Your task to perform on an android device: turn on translation in the chrome app Image 0: 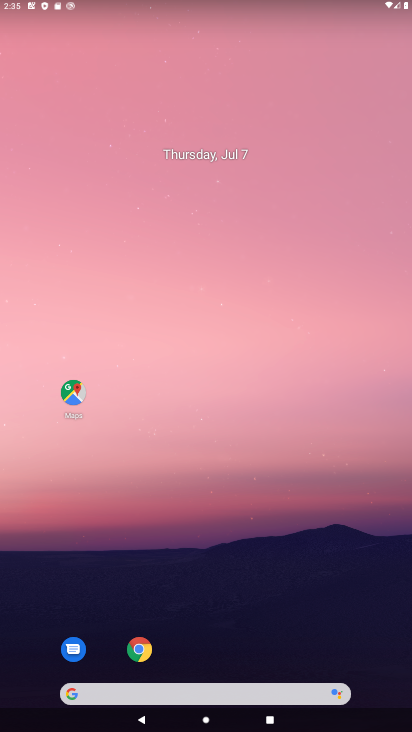
Step 0: drag from (283, 695) to (250, 214)
Your task to perform on an android device: turn on translation in the chrome app Image 1: 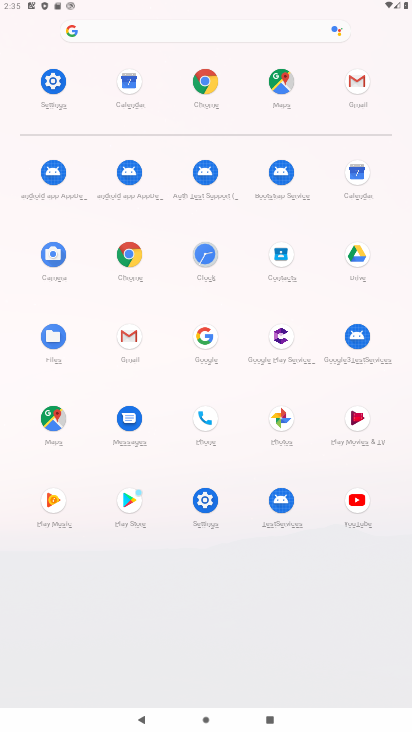
Step 1: click (127, 260)
Your task to perform on an android device: turn on translation in the chrome app Image 2: 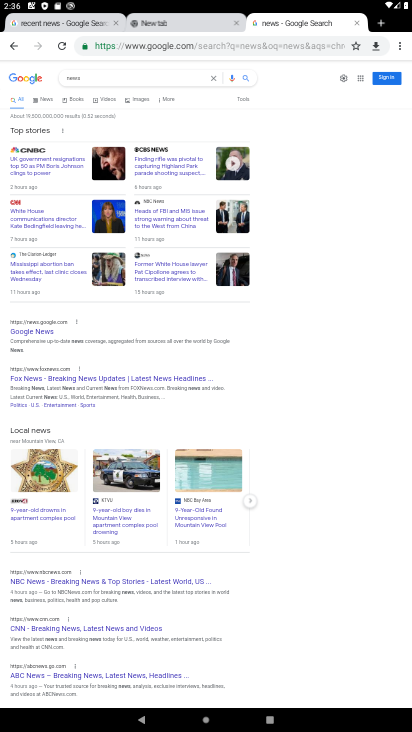
Step 2: drag from (396, 43) to (317, 280)
Your task to perform on an android device: turn on translation in the chrome app Image 3: 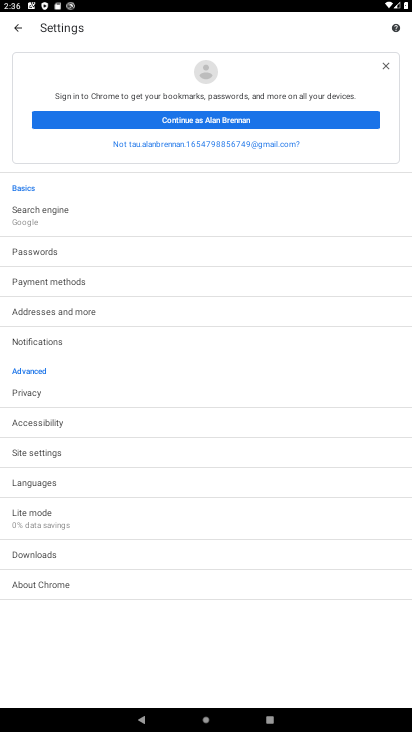
Step 3: click (49, 453)
Your task to perform on an android device: turn on translation in the chrome app Image 4: 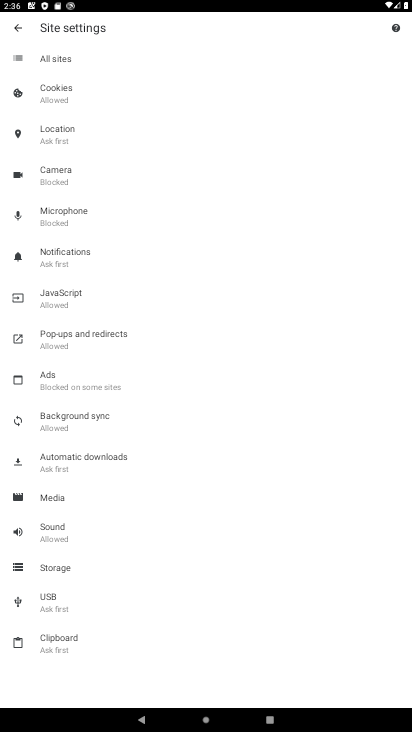
Step 4: press back button
Your task to perform on an android device: turn on translation in the chrome app Image 5: 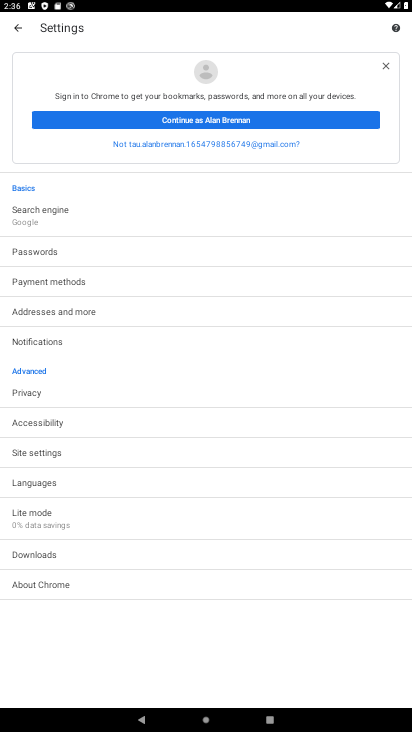
Step 5: click (39, 480)
Your task to perform on an android device: turn on translation in the chrome app Image 6: 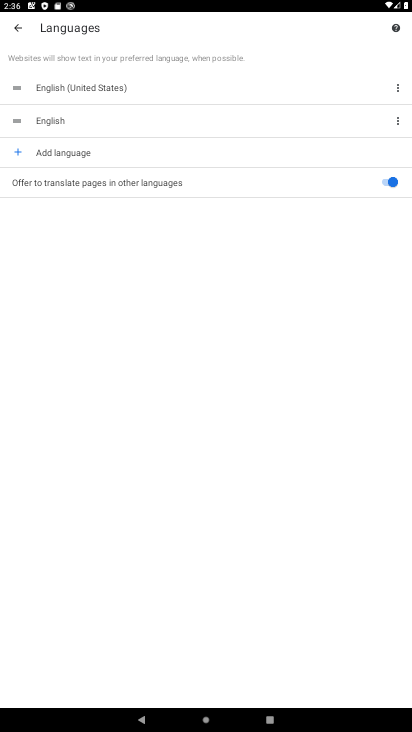
Step 6: task complete